Your task to perform on an android device: Open settings Image 0: 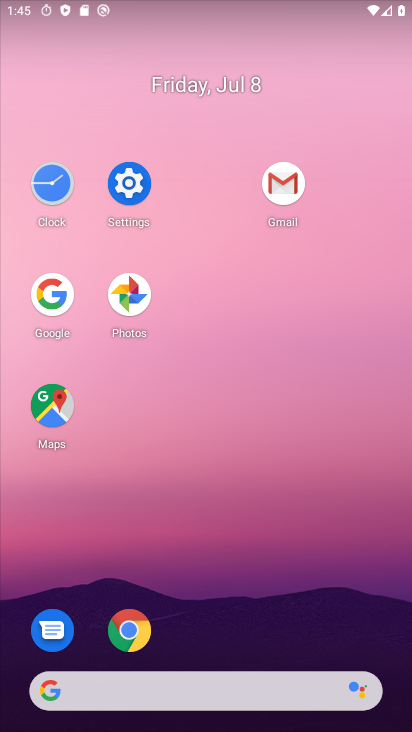
Step 0: click (132, 175)
Your task to perform on an android device: Open settings Image 1: 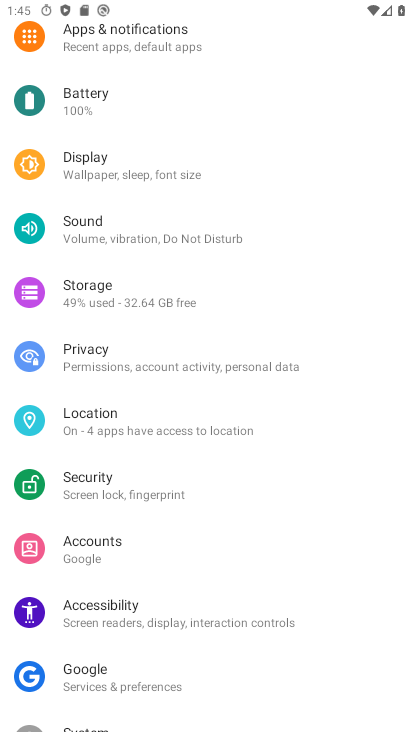
Step 1: task complete